Your task to perform on an android device: turn on notifications settings in the gmail app Image 0: 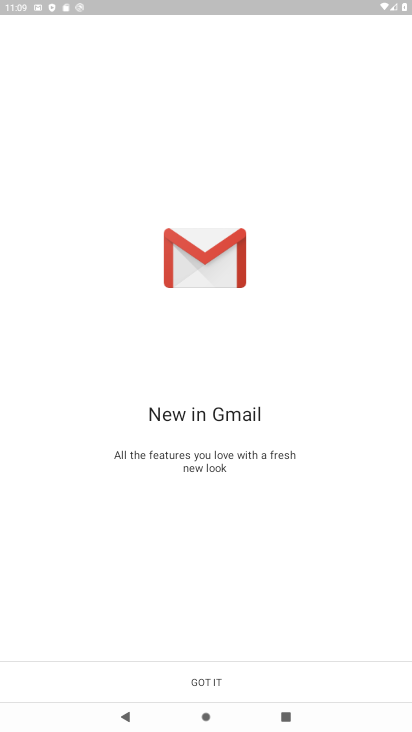
Step 0: click (193, 670)
Your task to perform on an android device: turn on notifications settings in the gmail app Image 1: 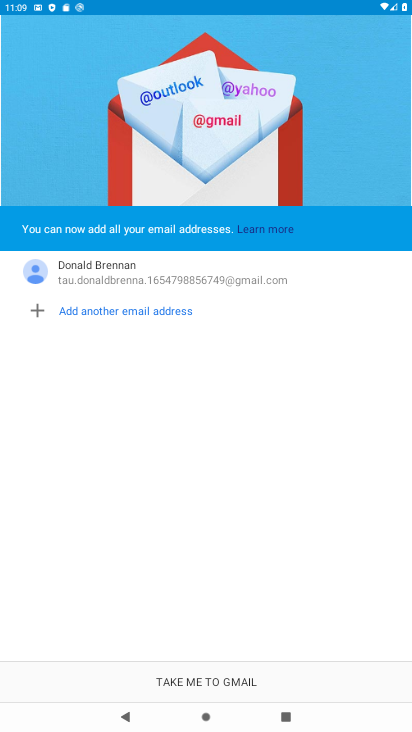
Step 1: click (195, 678)
Your task to perform on an android device: turn on notifications settings in the gmail app Image 2: 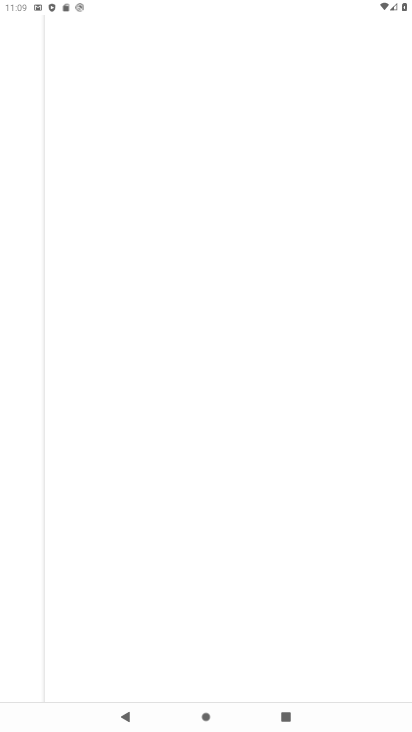
Step 2: drag from (262, 605) to (291, 204)
Your task to perform on an android device: turn on notifications settings in the gmail app Image 3: 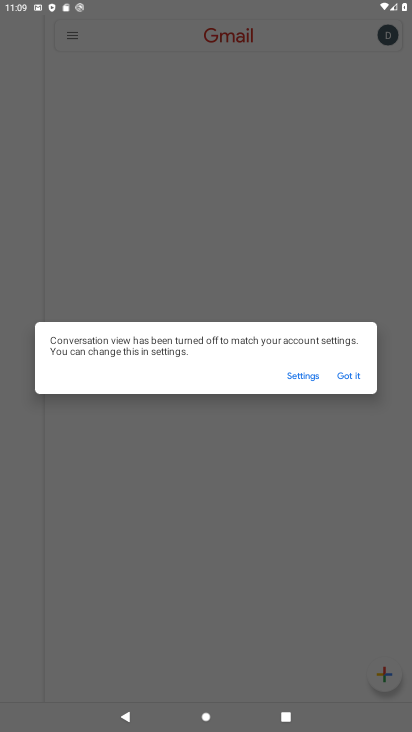
Step 3: drag from (258, 604) to (276, 208)
Your task to perform on an android device: turn on notifications settings in the gmail app Image 4: 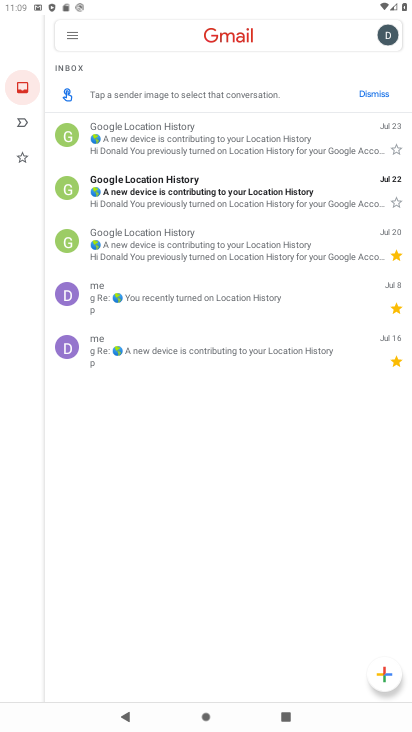
Step 4: click (348, 369)
Your task to perform on an android device: turn on notifications settings in the gmail app Image 5: 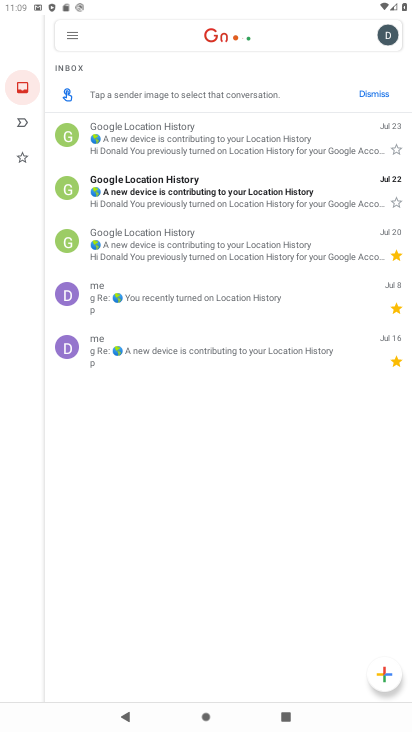
Step 5: drag from (348, 369) to (400, 55)
Your task to perform on an android device: turn on notifications settings in the gmail app Image 6: 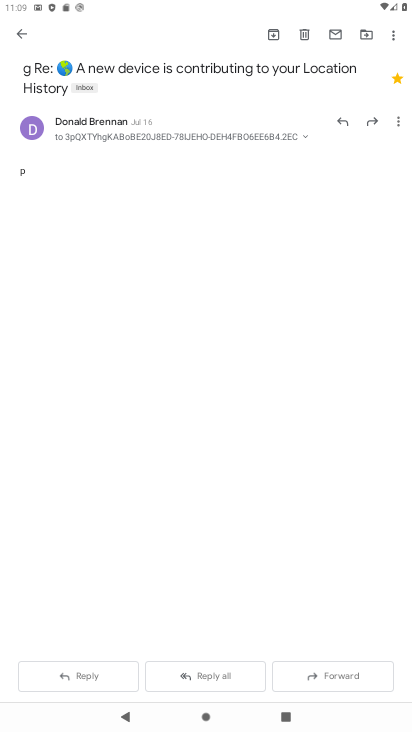
Step 6: click (25, 30)
Your task to perform on an android device: turn on notifications settings in the gmail app Image 7: 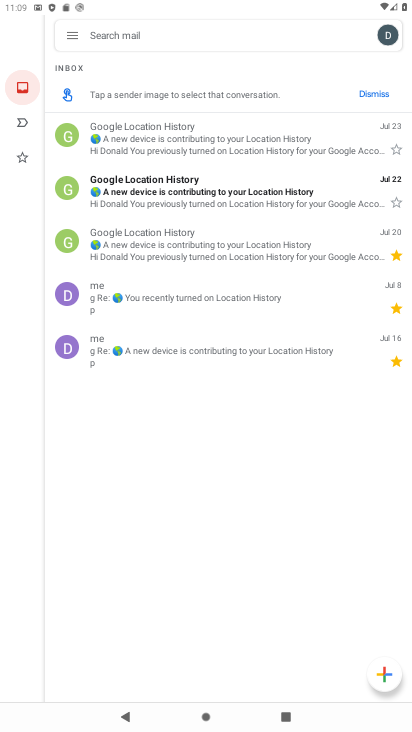
Step 7: drag from (269, 451) to (291, 162)
Your task to perform on an android device: turn on notifications settings in the gmail app Image 8: 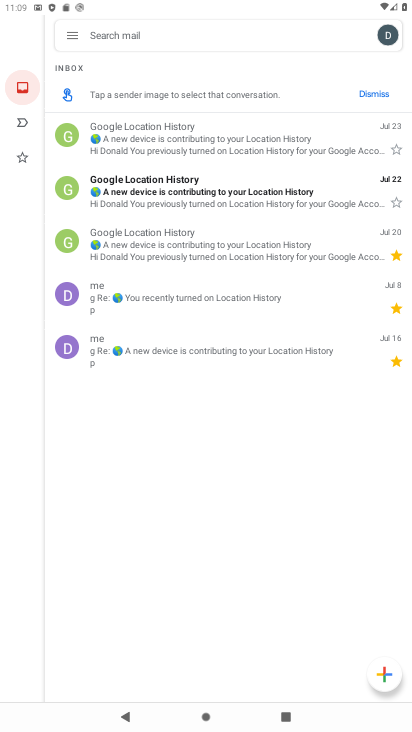
Step 8: click (63, 31)
Your task to perform on an android device: turn on notifications settings in the gmail app Image 9: 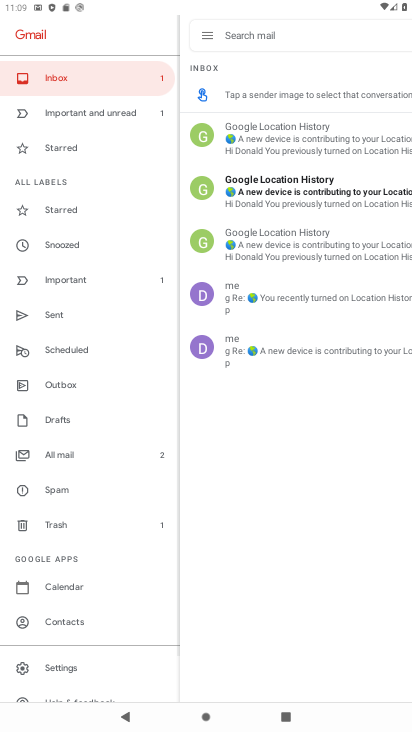
Step 9: drag from (89, 579) to (201, 0)
Your task to perform on an android device: turn on notifications settings in the gmail app Image 10: 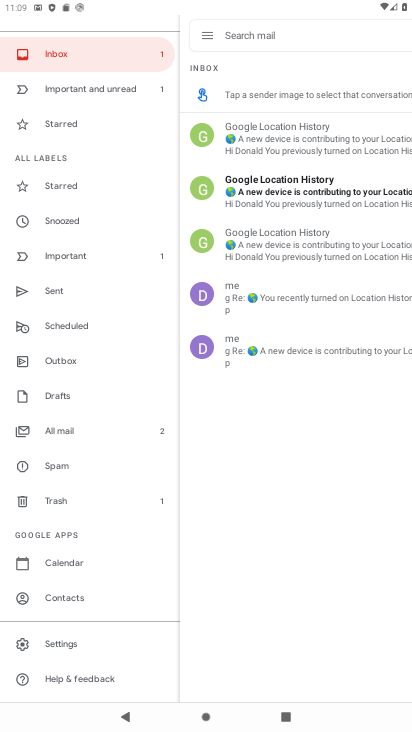
Step 10: click (63, 644)
Your task to perform on an android device: turn on notifications settings in the gmail app Image 11: 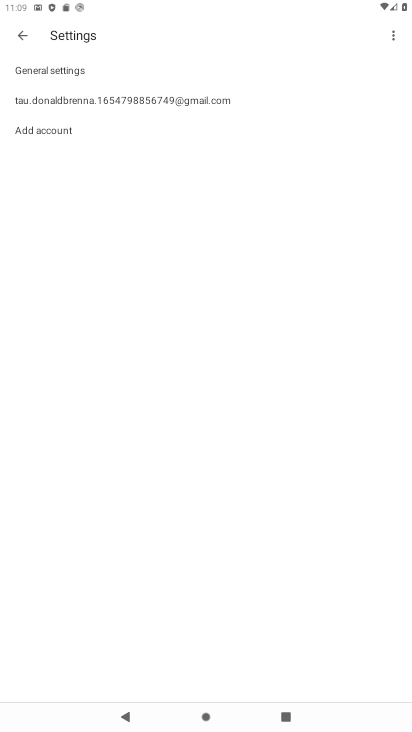
Step 11: drag from (137, 601) to (202, 155)
Your task to perform on an android device: turn on notifications settings in the gmail app Image 12: 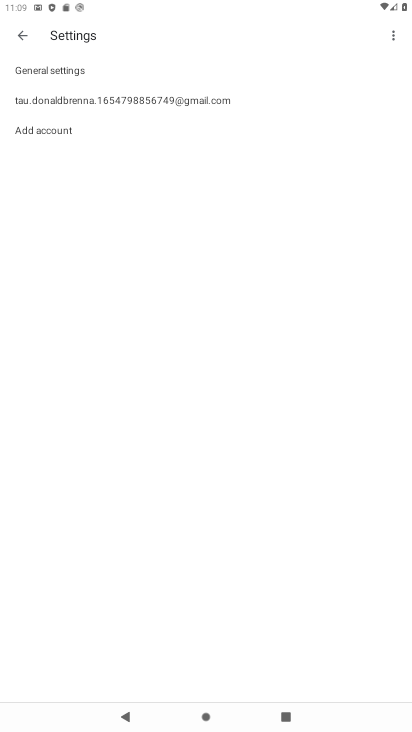
Step 12: click (116, 102)
Your task to perform on an android device: turn on notifications settings in the gmail app Image 13: 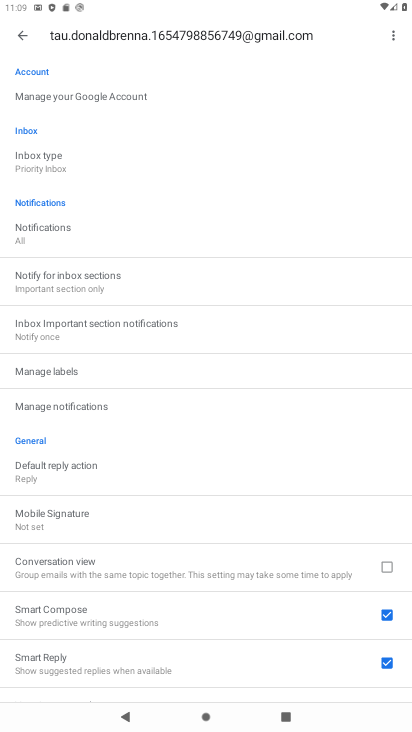
Step 13: drag from (135, 568) to (220, 98)
Your task to perform on an android device: turn on notifications settings in the gmail app Image 14: 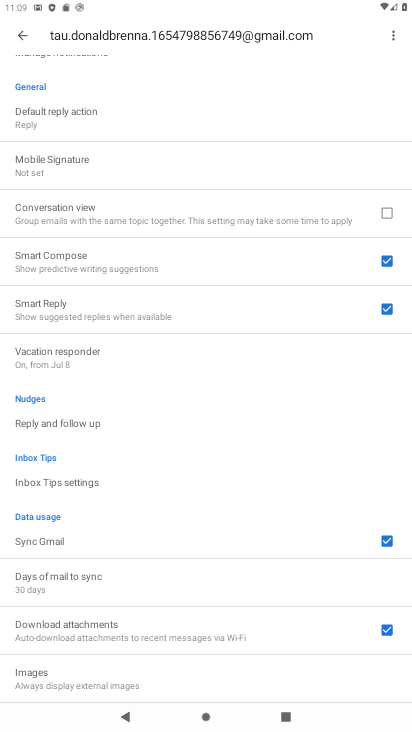
Step 14: drag from (144, 132) to (296, 714)
Your task to perform on an android device: turn on notifications settings in the gmail app Image 15: 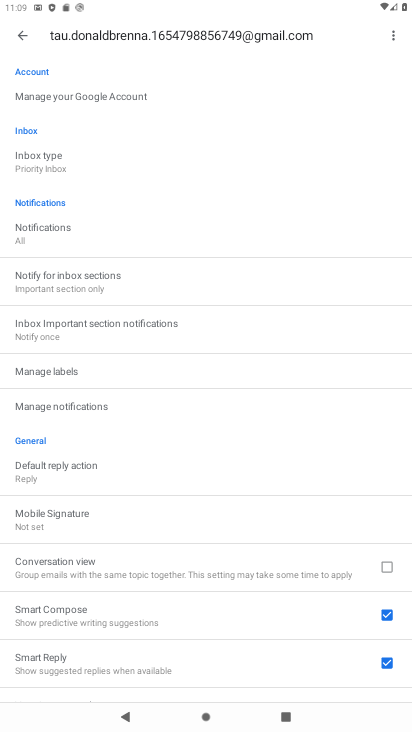
Step 15: click (82, 402)
Your task to perform on an android device: turn on notifications settings in the gmail app Image 16: 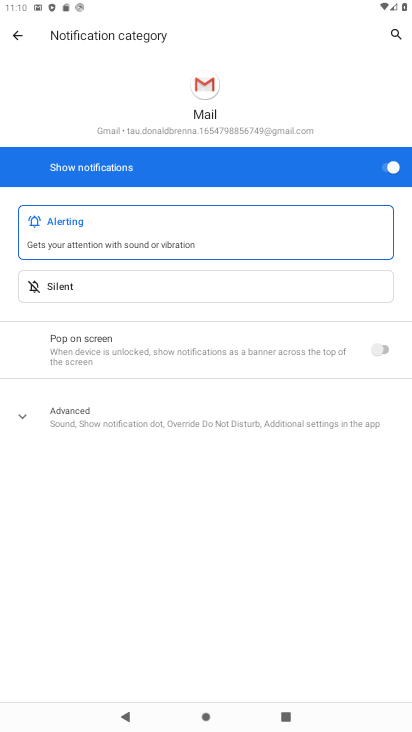
Step 16: task complete